Your task to perform on an android device: open a bookmark in the chrome app Image 0: 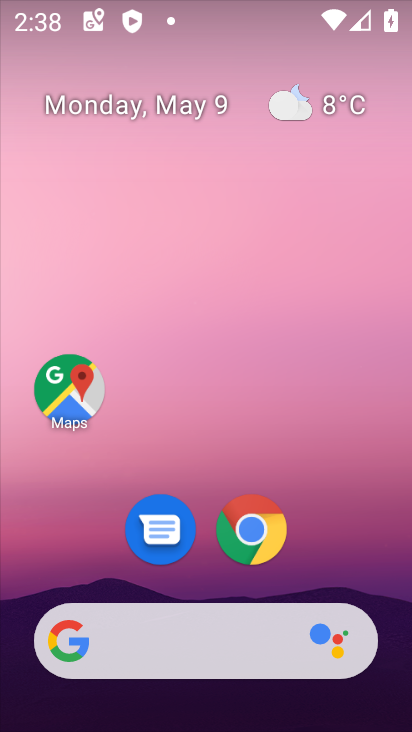
Step 0: click (271, 530)
Your task to perform on an android device: open a bookmark in the chrome app Image 1: 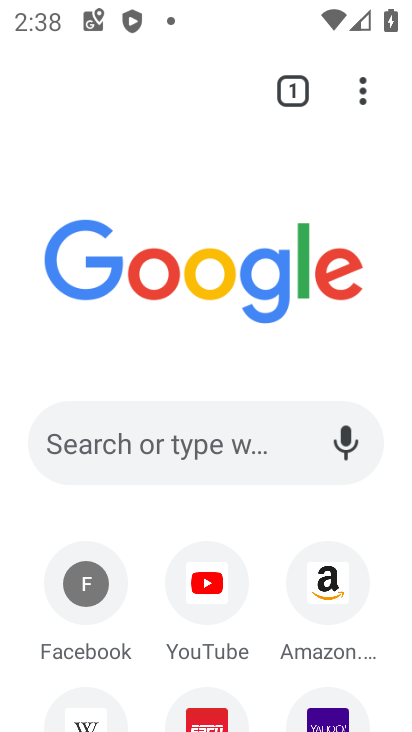
Step 1: click (356, 85)
Your task to perform on an android device: open a bookmark in the chrome app Image 2: 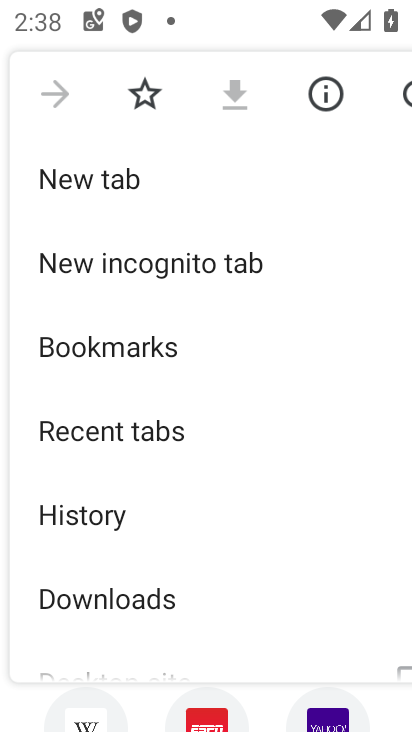
Step 2: click (132, 343)
Your task to perform on an android device: open a bookmark in the chrome app Image 3: 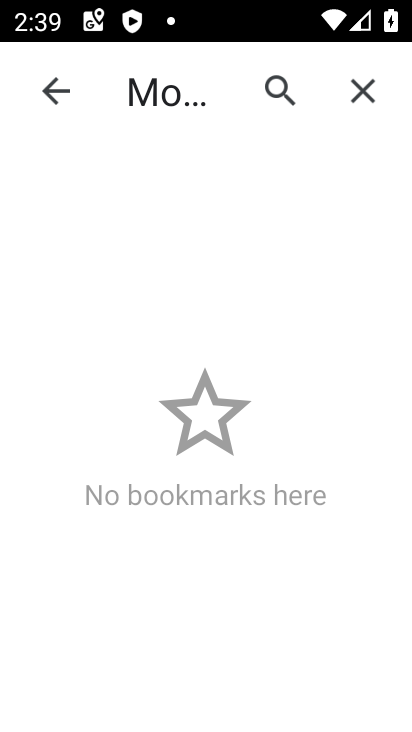
Step 3: task complete